Your task to perform on an android device: delete the emails in spam in the gmail app Image 0: 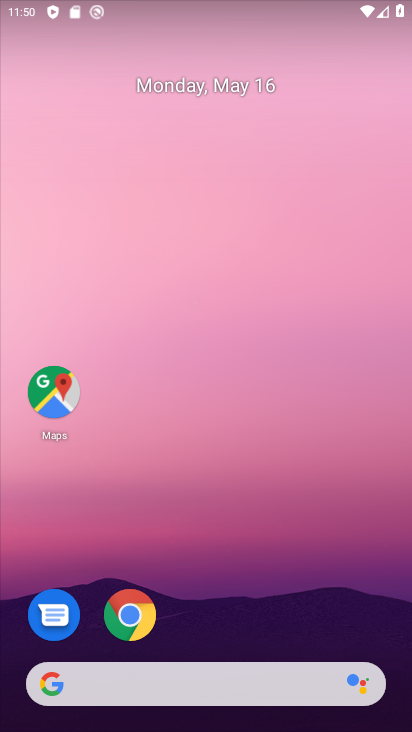
Step 0: drag from (317, 634) to (343, 72)
Your task to perform on an android device: delete the emails in spam in the gmail app Image 1: 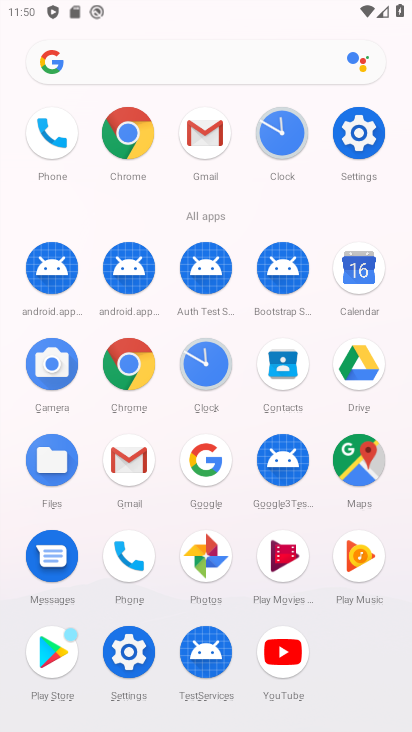
Step 1: click (191, 155)
Your task to perform on an android device: delete the emails in spam in the gmail app Image 2: 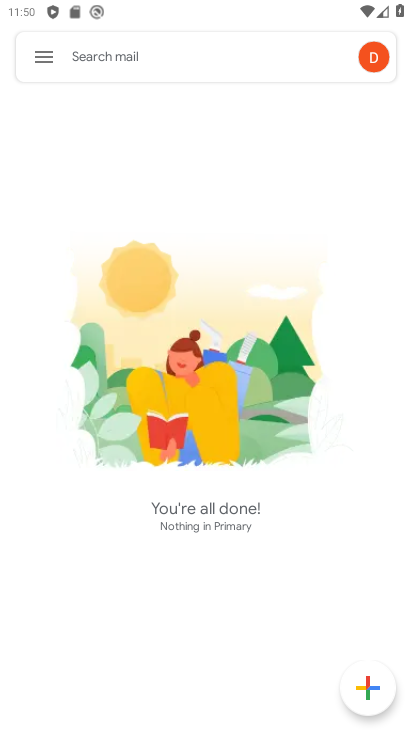
Step 2: click (48, 52)
Your task to perform on an android device: delete the emails in spam in the gmail app Image 3: 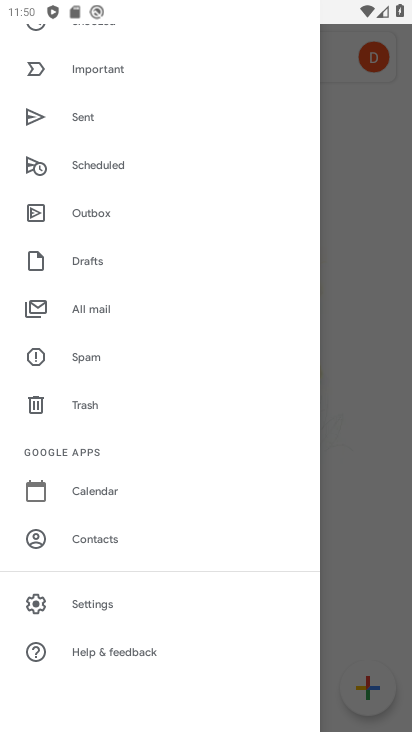
Step 3: click (117, 359)
Your task to perform on an android device: delete the emails in spam in the gmail app Image 4: 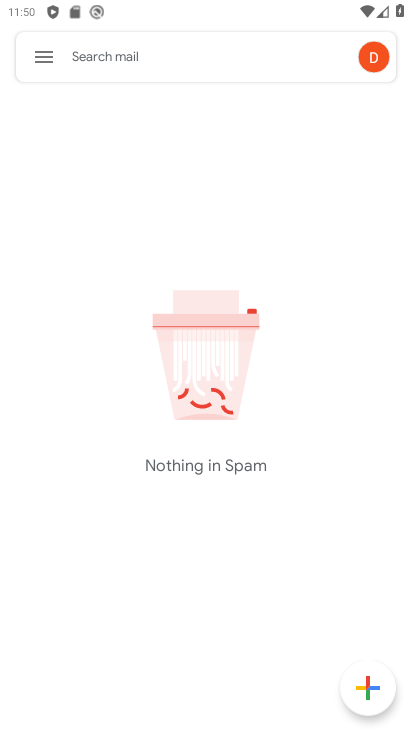
Step 4: task complete